Your task to perform on an android device: open a new tab in the chrome app Image 0: 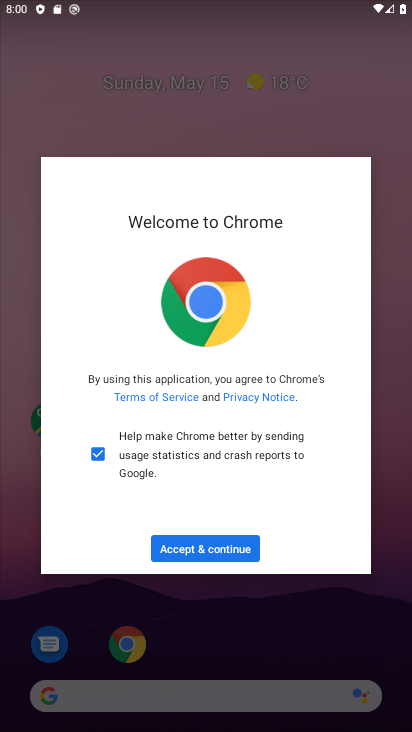
Step 0: click (186, 551)
Your task to perform on an android device: open a new tab in the chrome app Image 1: 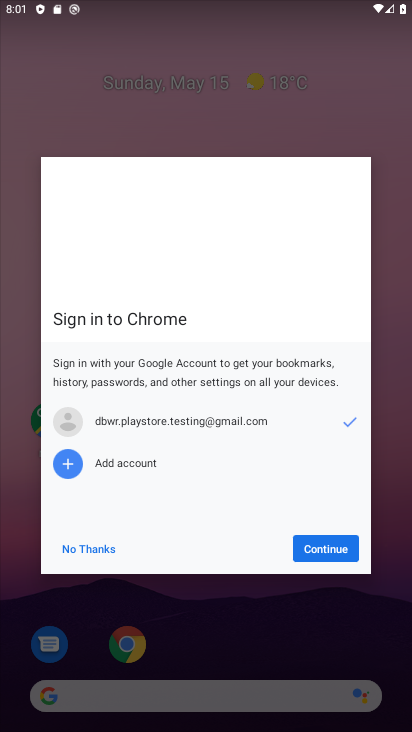
Step 1: click (338, 546)
Your task to perform on an android device: open a new tab in the chrome app Image 2: 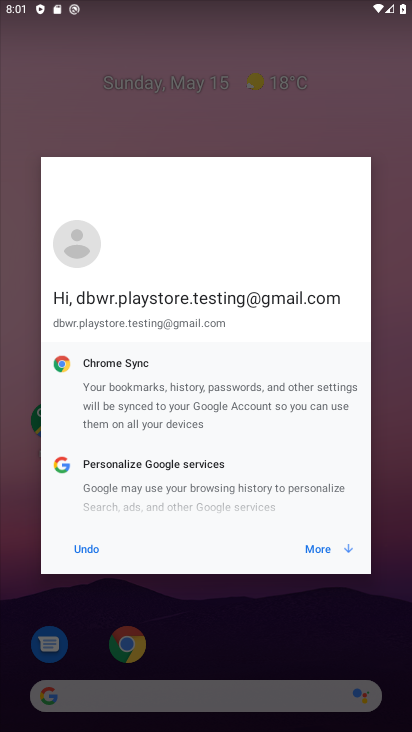
Step 2: click (307, 555)
Your task to perform on an android device: open a new tab in the chrome app Image 3: 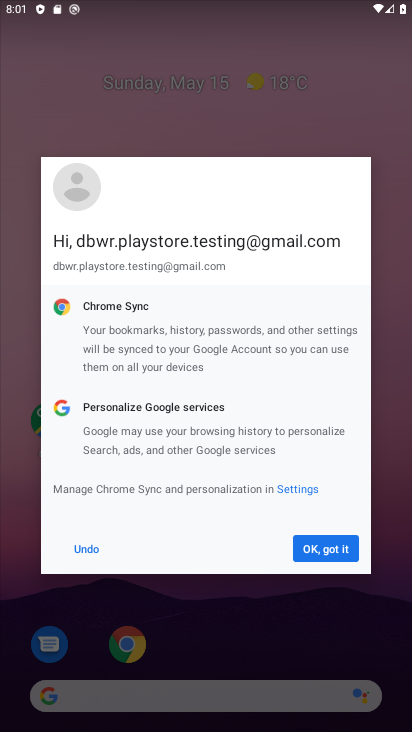
Step 3: click (346, 554)
Your task to perform on an android device: open a new tab in the chrome app Image 4: 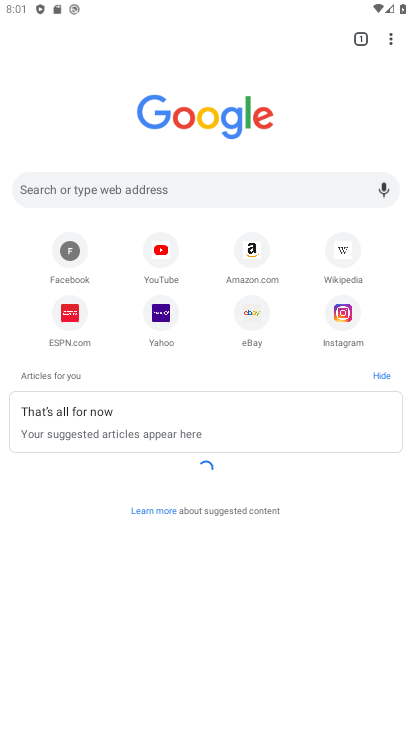
Step 4: click (402, 130)
Your task to perform on an android device: open a new tab in the chrome app Image 5: 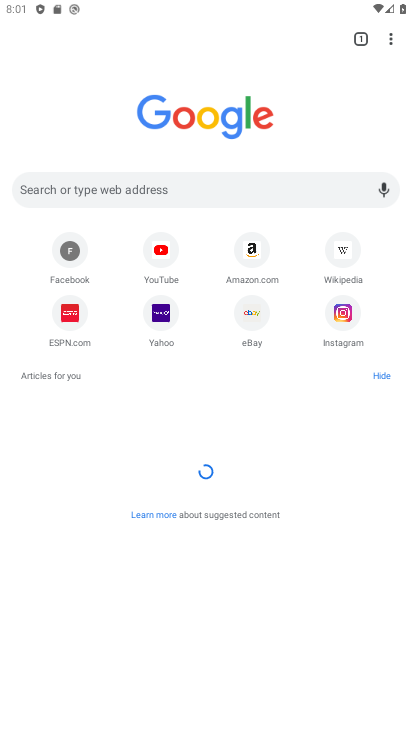
Step 5: click (390, 41)
Your task to perform on an android device: open a new tab in the chrome app Image 6: 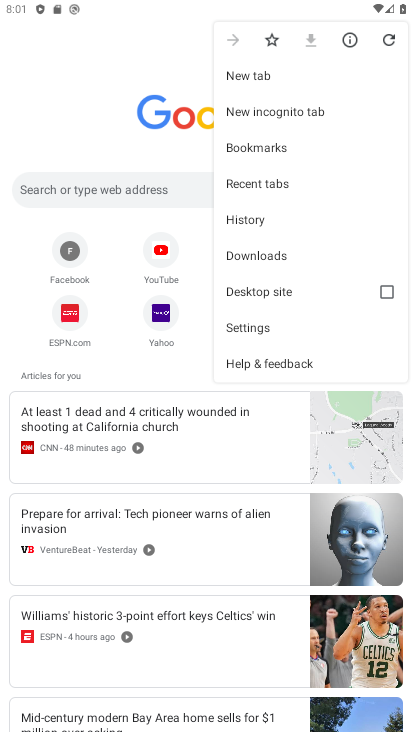
Step 6: click (299, 72)
Your task to perform on an android device: open a new tab in the chrome app Image 7: 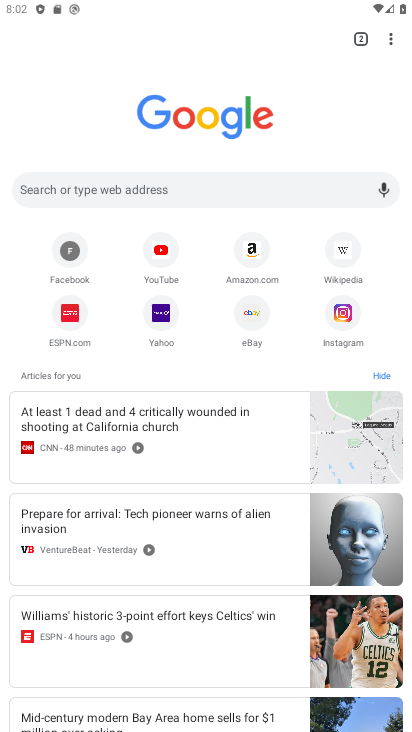
Step 7: task complete